Your task to perform on an android device: toggle notifications settings in the gmail app Image 0: 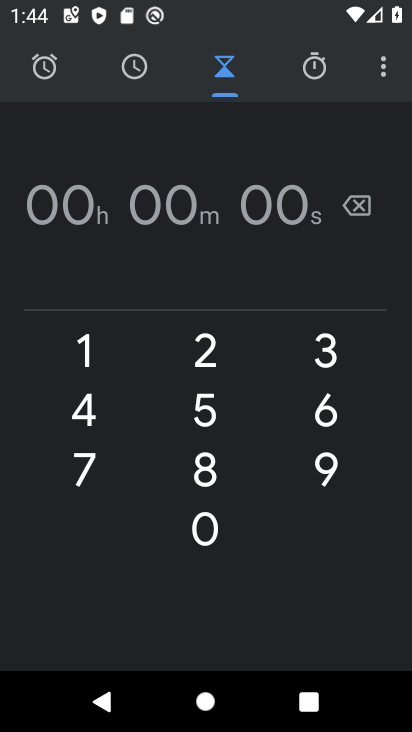
Step 0: press home button
Your task to perform on an android device: toggle notifications settings in the gmail app Image 1: 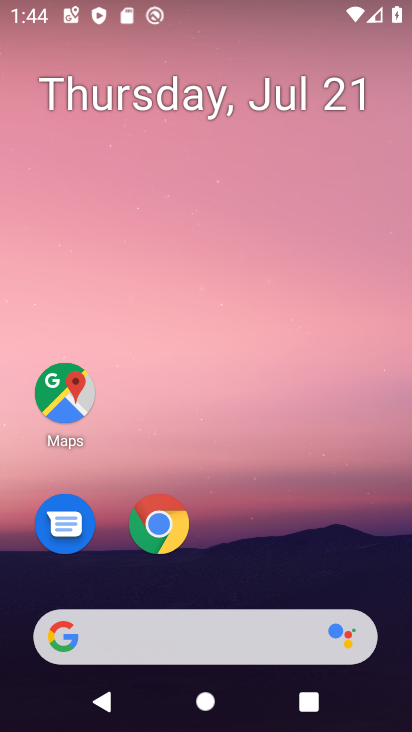
Step 1: drag from (249, 556) to (283, 31)
Your task to perform on an android device: toggle notifications settings in the gmail app Image 2: 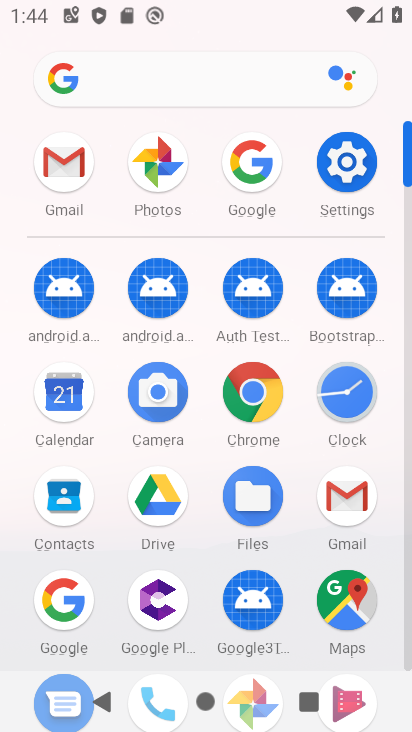
Step 2: click (74, 150)
Your task to perform on an android device: toggle notifications settings in the gmail app Image 3: 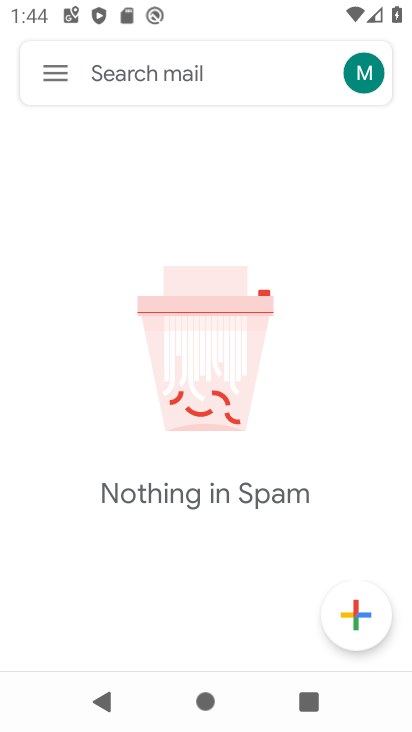
Step 3: click (66, 78)
Your task to perform on an android device: toggle notifications settings in the gmail app Image 4: 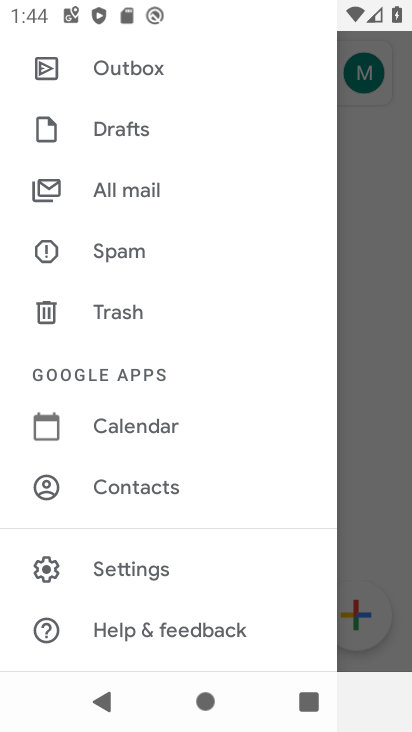
Step 4: click (155, 561)
Your task to perform on an android device: toggle notifications settings in the gmail app Image 5: 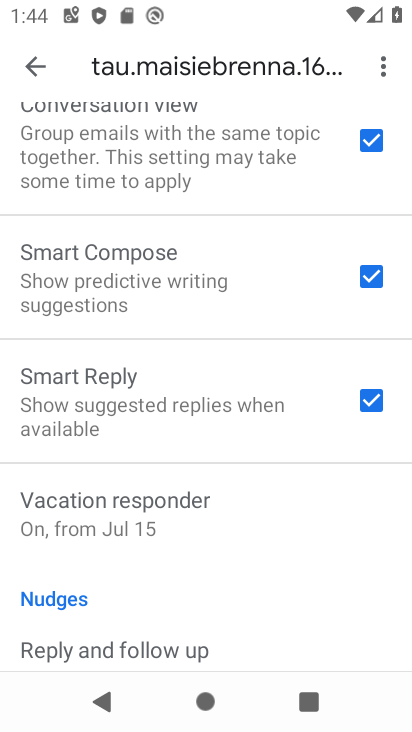
Step 5: drag from (268, 158) to (266, 619)
Your task to perform on an android device: toggle notifications settings in the gmail app Image 6: 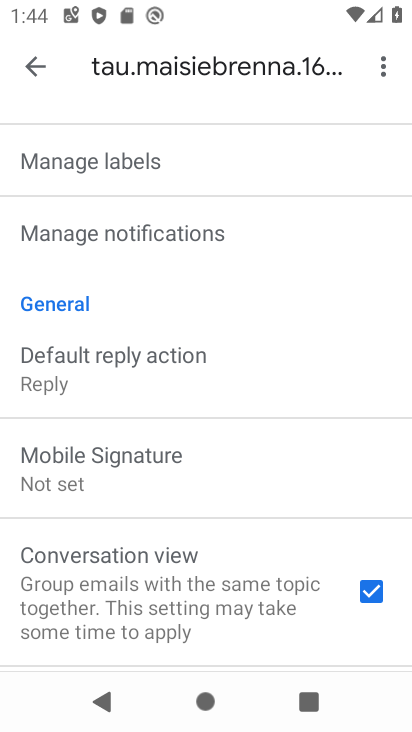
Step 6: click (219, 231)
Your task to perform on an android device: toggle notifications settings in the gmail app Image 7: 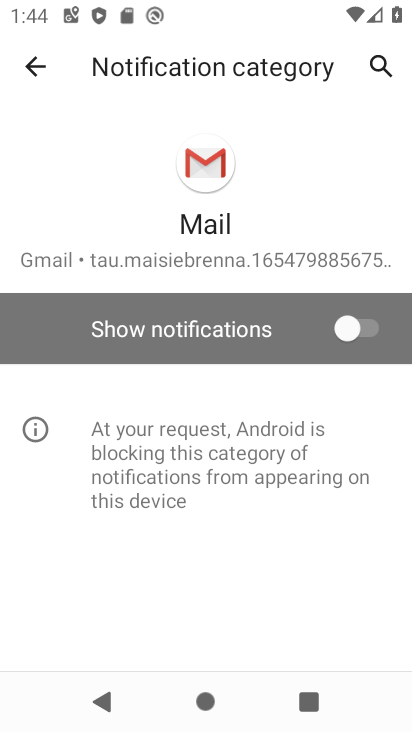
Step 7: click (361, 322)
Your task to perform on an android device: toggle notifications settings in the gmail app Image 8: 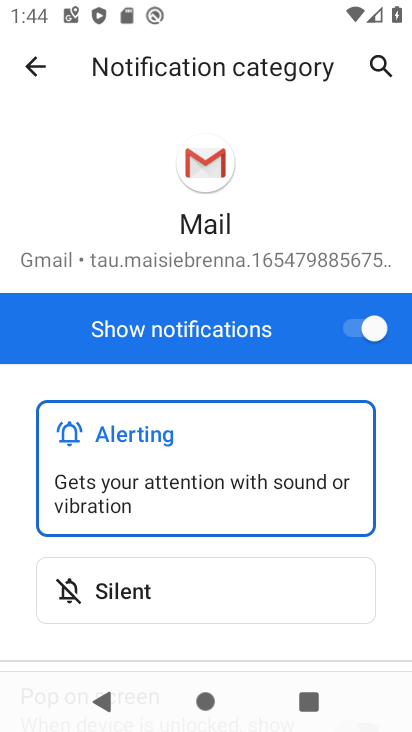
Step 8: task complete